Your task to perform on an android device: turn on the 24-hour format for clock Image 0: 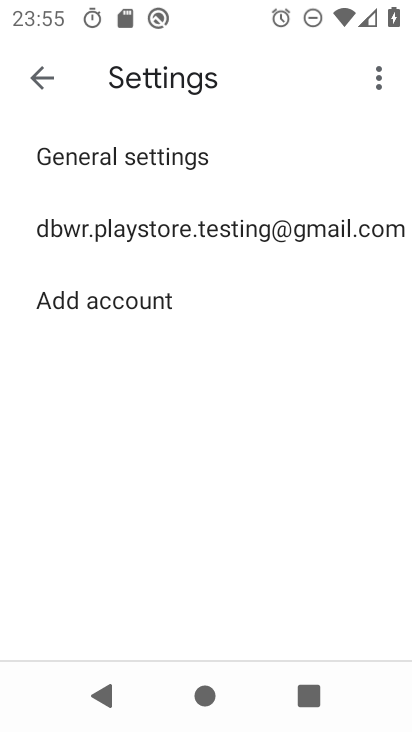
Step 0: press home button
Your task to perform on an android device: turn on the 24-hour format for clock Image 1: 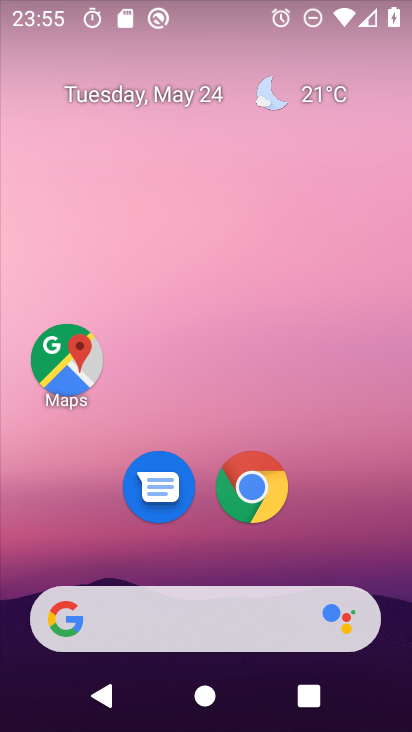
Step 1: drag from (329, 563) to (341, 1)
Your task to perform on an android device: turn on the 24-hour format for clock Image 2: 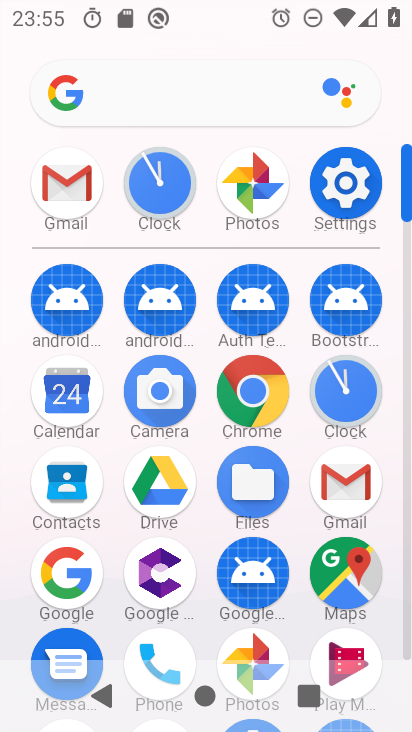
Step 2: click (340, 394)
Your task to perform on an android device: turn on the 24-hour format for clock Image 3: 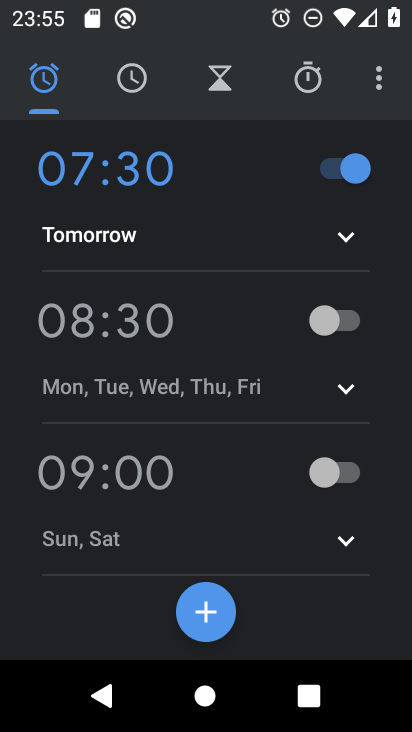
Step 3: click (377, 79)
Your task to perform on an android device: turn on the 24-hour format for clock Image 4: 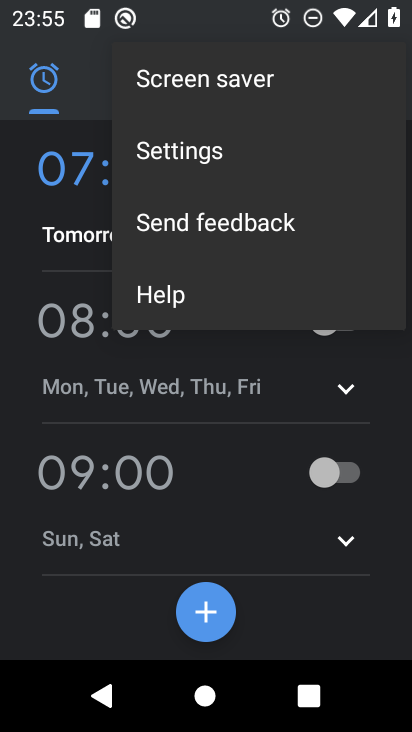
Step 4: click (181, 157)
Your task to perform on an android device: turn on the 24-hour format for clock Image 5: 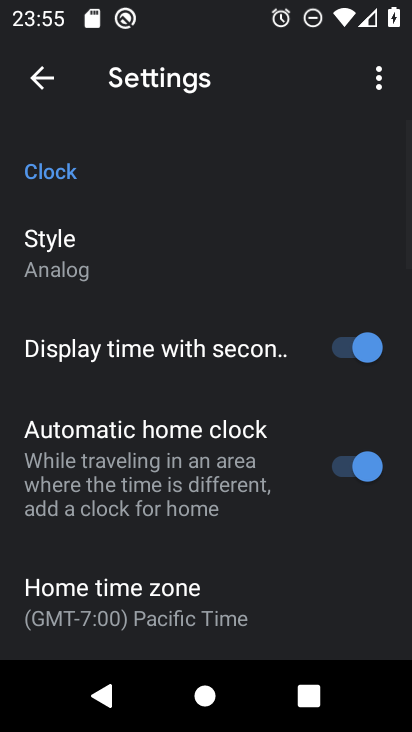
Step 5: drag from (132, 346) to (153, 202)
Your task to perform on an android device: turn on the 24-hour format for clock Image 6: 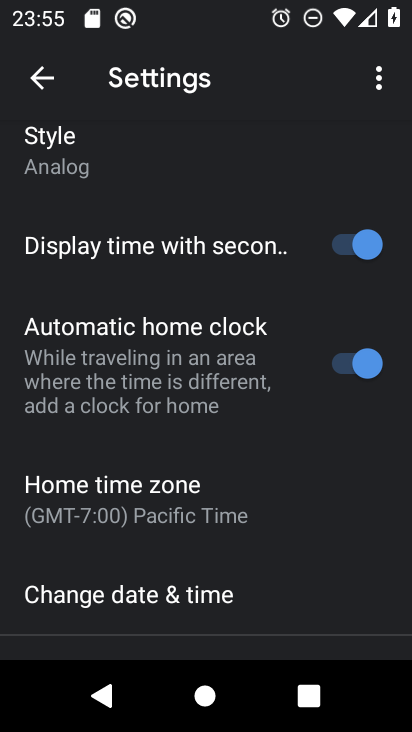
Step 6: click (98, 592)
Your task to perform on an android device: turn on the 24-hour format for clock Image 7: 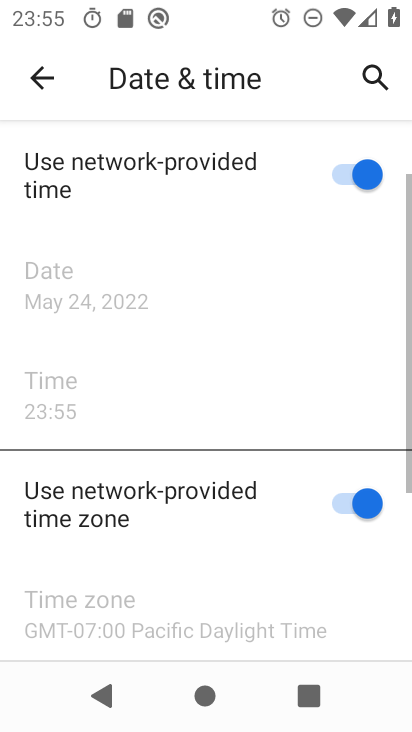
Step 7: task complete